Your task to perform on an android device: check the backup settings in the google photos Image 0: 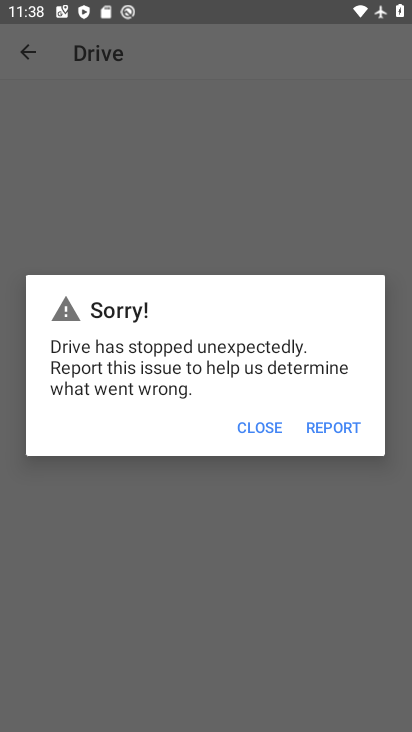
Step 0: press back button
Your task to perform on an android device: check the backup settings in the google photos Image 1: 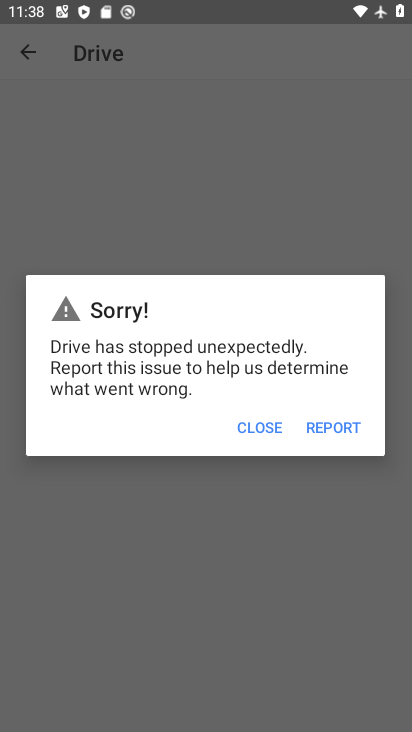
Step 1: press back button
Your task to perform on an android device: check the backup settings in the google photos Image 2: 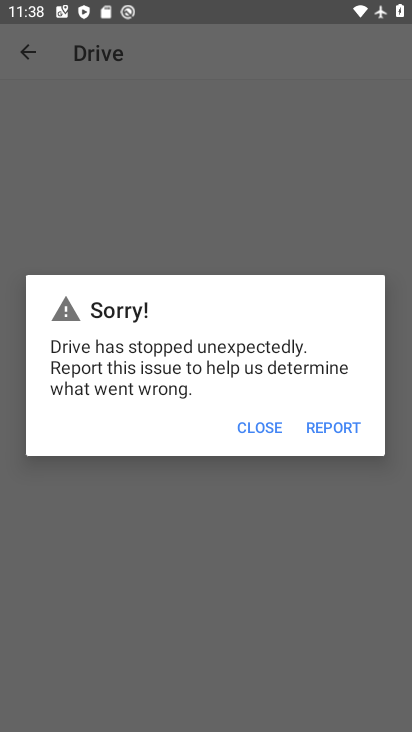
Step 2: press home button
Your task to perform on an android device: check the backup settings in the google photos Image 3: 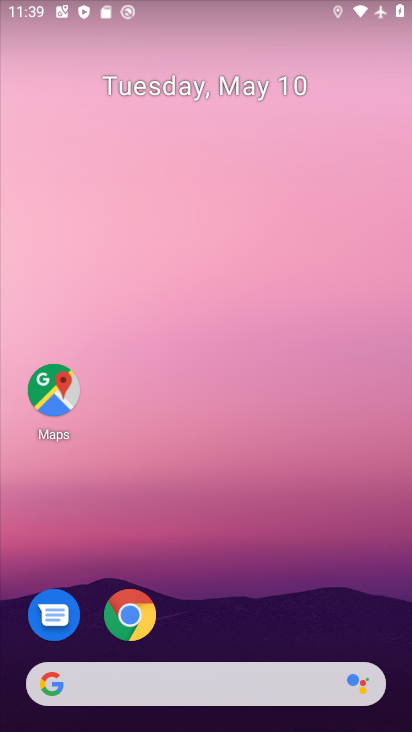
Step 3: drag from (258, 481) to (215, 36)
Your task to perform on an android device: check the backup settings in the google photos Image 4: 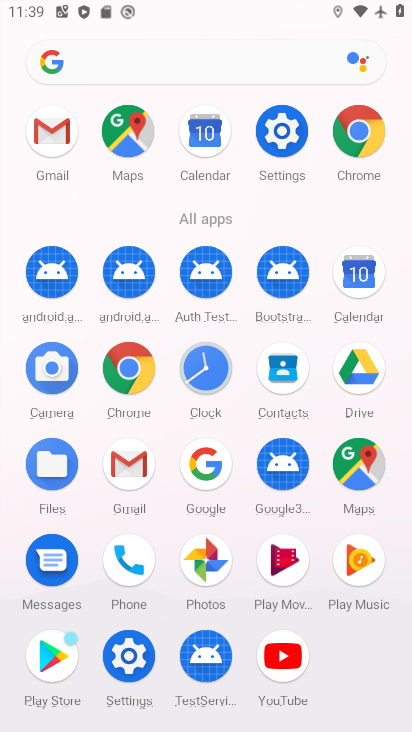
Step 4: click (203, 558)
Your task to perform on an android device: check the backup settings in the google photos Image 5: 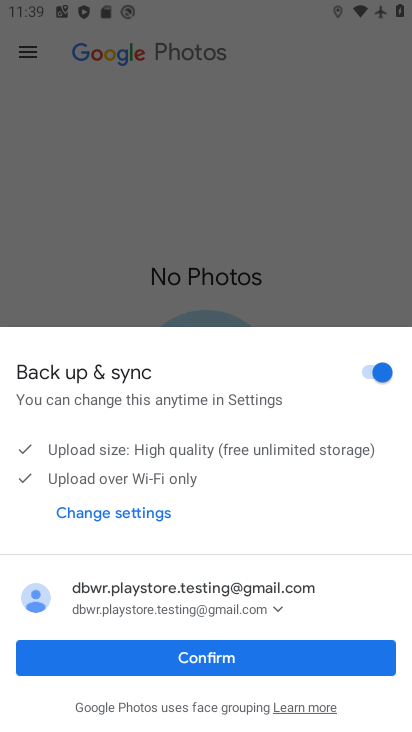
Step 5: click (127, 651)
Your task to perform on an android device: check the backup settings in the google photos Image 6: 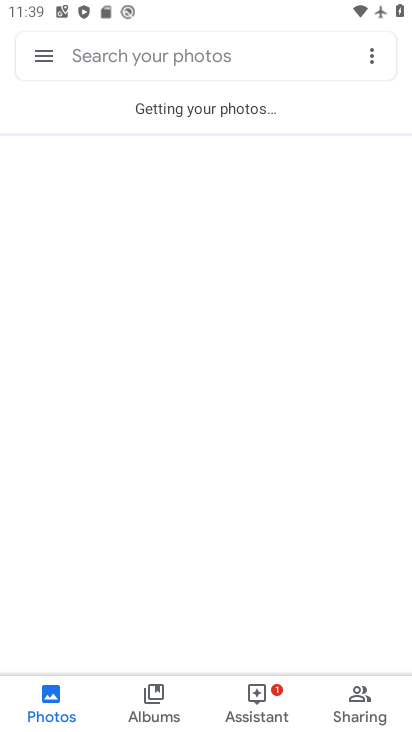
Step 6: click (44, 52)
Your task to perform on an android device: check the backup settings in the google photos Image 7: 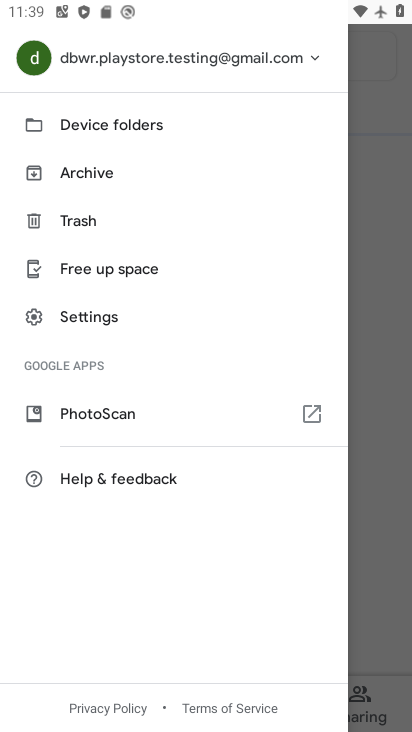
Step 7: click (97, 313)
Your task to perform on an android device: check the backup settings in the google photos Image 8: 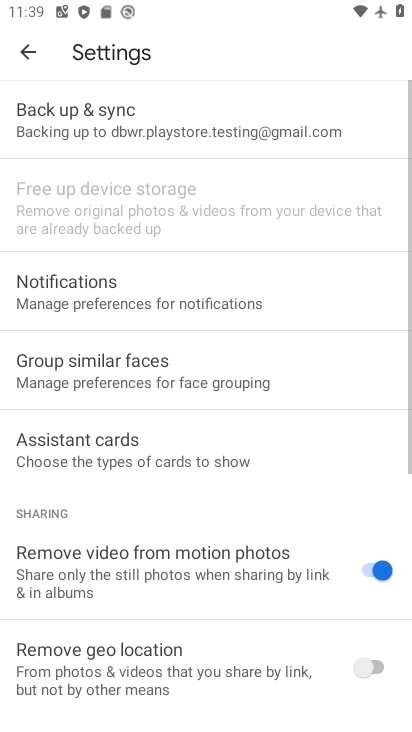
Step 8: click (110, 118)
Your task to perform on an android device: check the backup settings in the google photos Image 9: 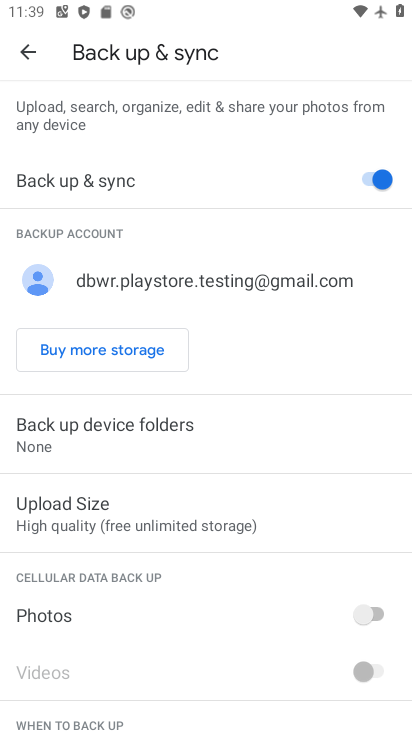
Step 9: drag from (212, 597) to (223, 184)
Your task to perform on an android device: check the backup settings in the google photos Image 10: 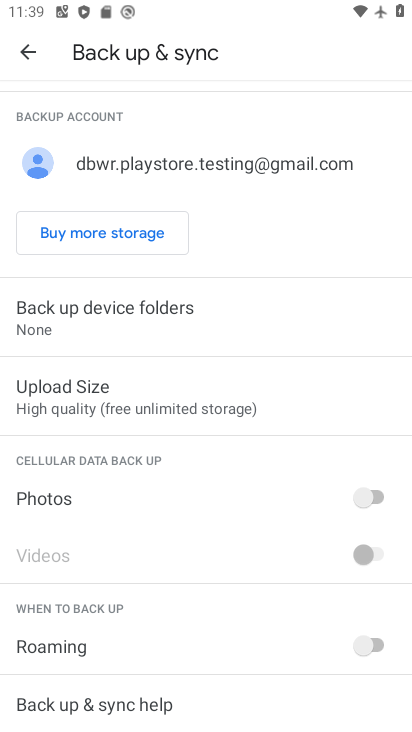
Step 10: drag from (202, 260) to (199, 602)
Your task to perform on an android device: check the backup settings in the google photos Image 11: 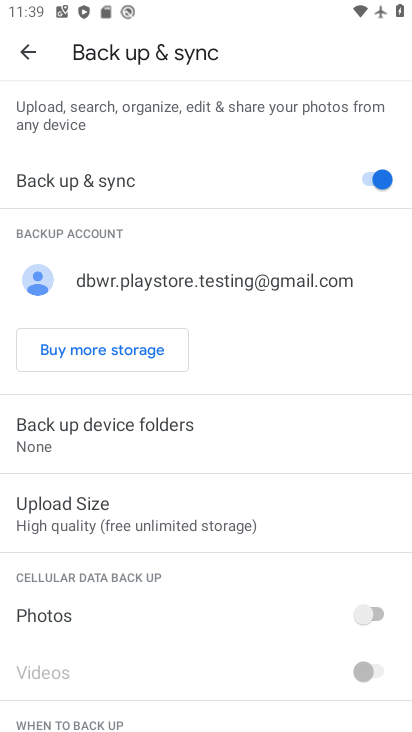
Step 11: click (23, 49)
Your task to perform on an android device: check the backup settings in the google photos Image 12: 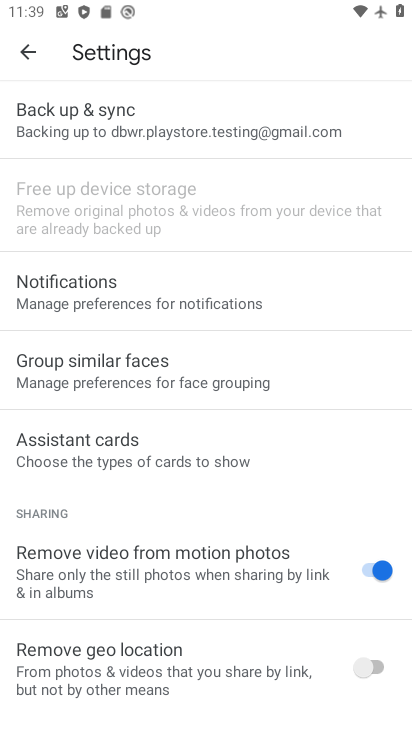
Step 12: click (104, 108)
Your task to perform on an android device: check the backup settings in the google photos Image 13: 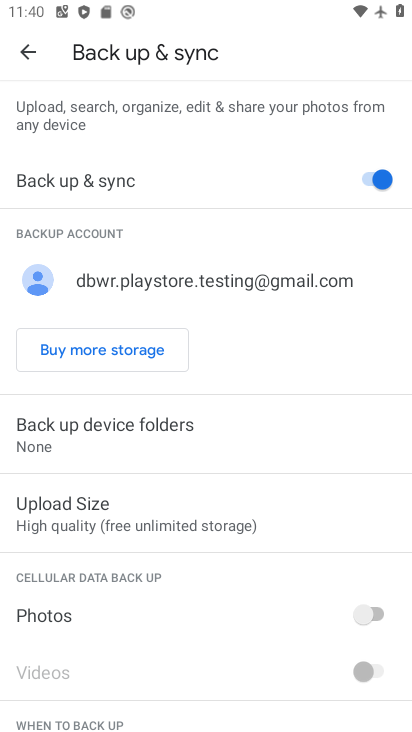
Step 13: task complete